Your task to perform on an android device: open chrome privacy settings Image 0: 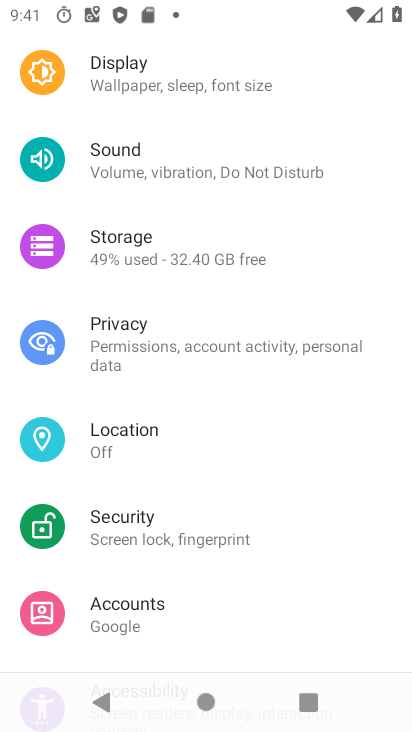
Step 0: click (118, 341)
Your task to perform on an android device: open chrome privacy settings Image 1: 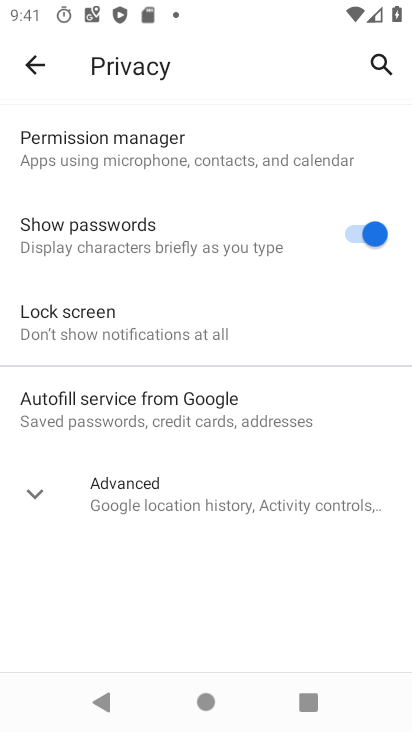
Step 1: task complete